Your task to perform on an android device: Open network settings Image 0: 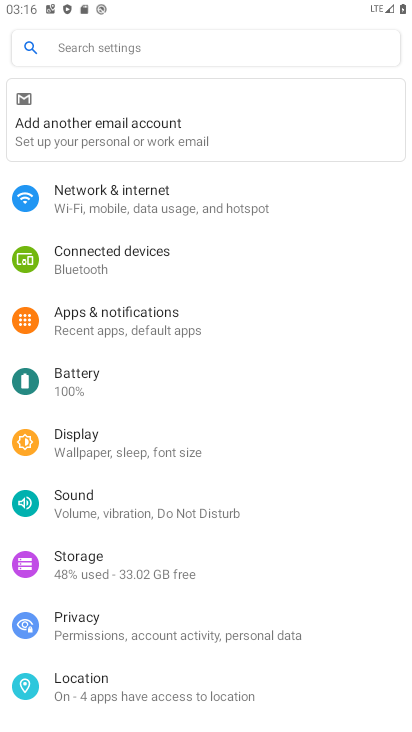
Step 0: click (132, 198)
Your task to perform on an android device: Open network settings Image 1: 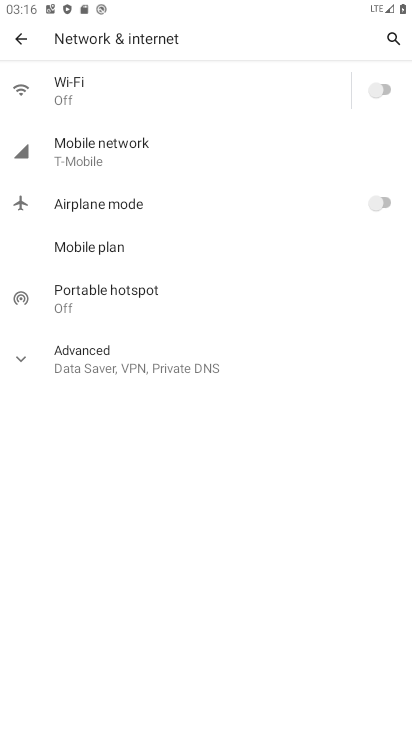
Step 1: task complete